Your task to perform on an android device: open app "Messages" Image 0: 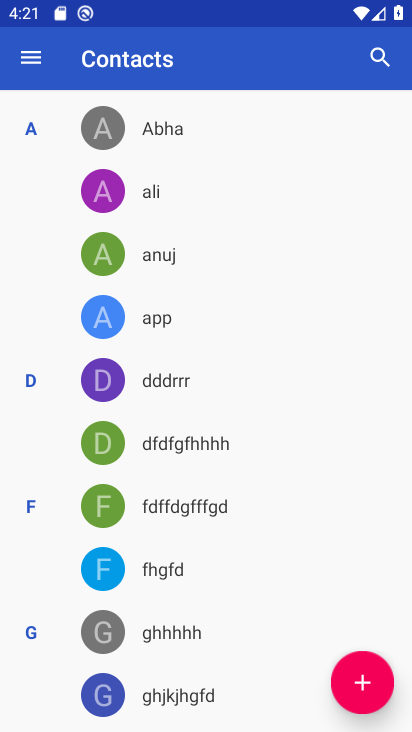
Step 0: press home button
Your task to perform on an android device: open app "Messages" Image 1: 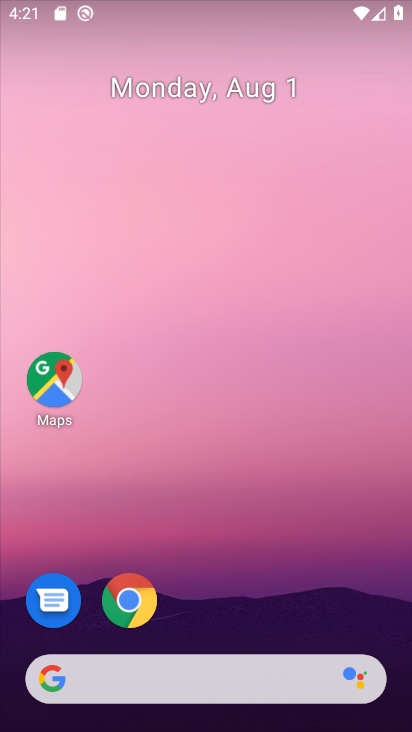
Step 1: drag from (339, 510) to (312, 1)
Your task to perform on an android device: open app "Messages" Image 2: 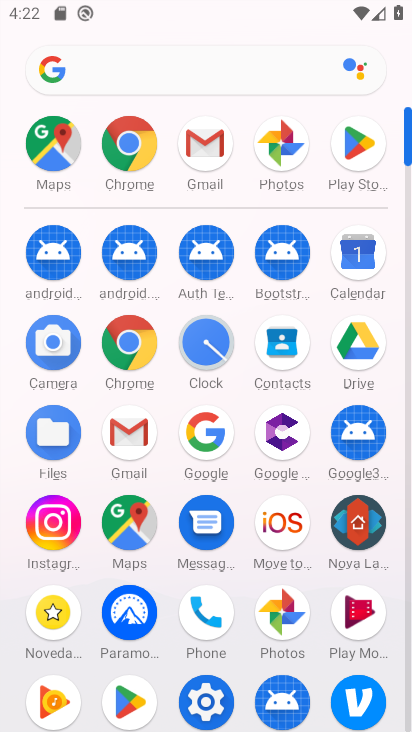
Step 2: click (364, 141)
Your task to perform on an android device: open app "Messages" Image 3: 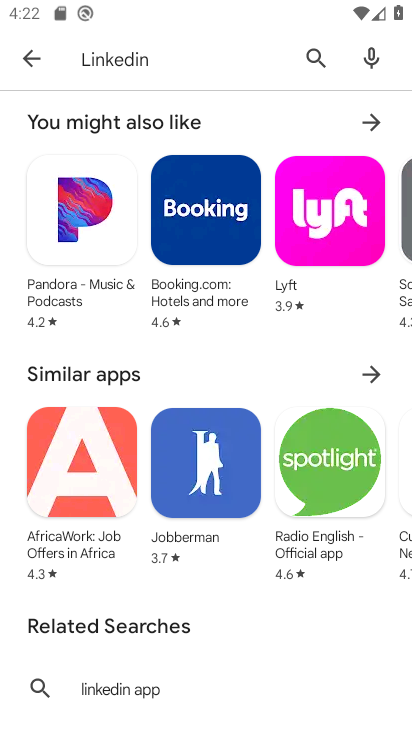
Step 3: click (259, 64)
Your task to perform on an android device: open app "Messages" Image 4: 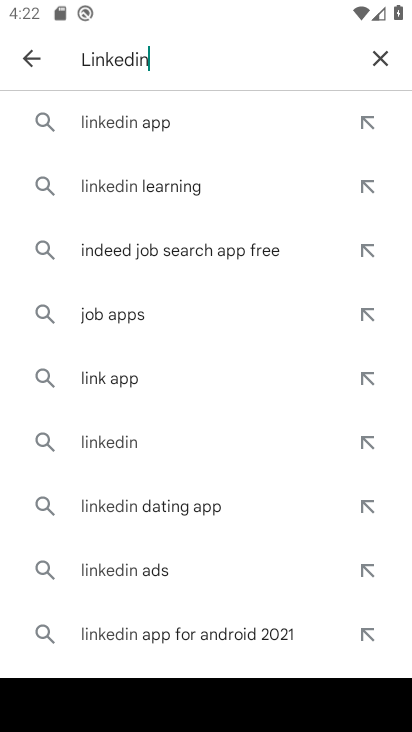
Step 4: click (386, 59)
Your task to perform on an android device: open app "Messages" Image 5: 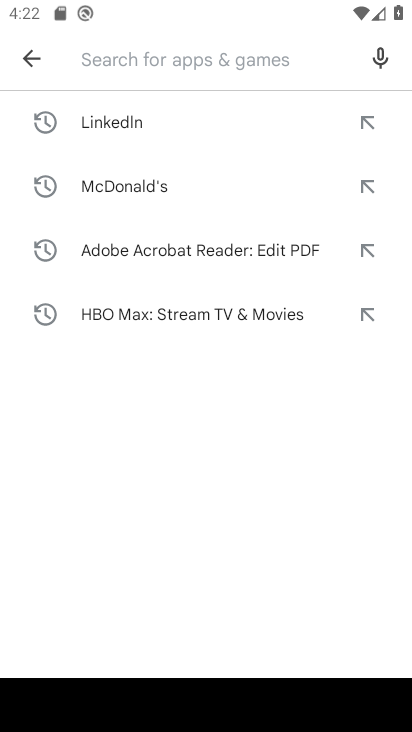
Step 5: type "Messages"
Your task to perform on an android device: open app "Messages" Image 6: 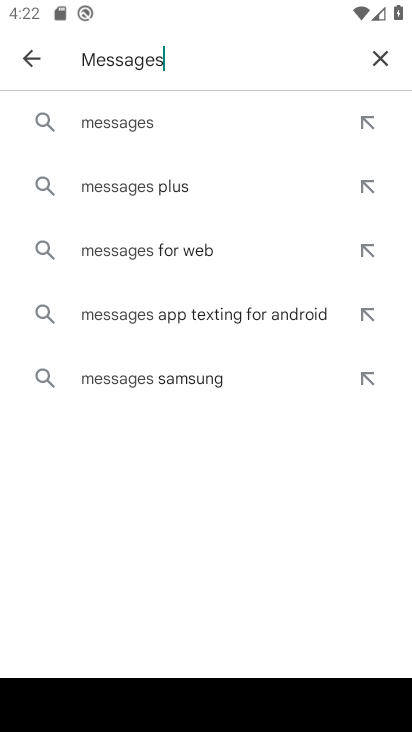
Step 6: press enter
Your task to perform on an android device: open app "Messages" Image 7: 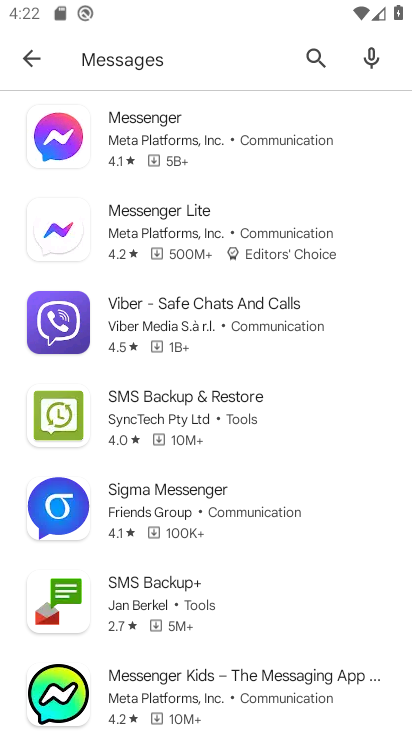
Step 7: task complete